Your task to perform on an android device: Open Chrome and go to settings Image 0: 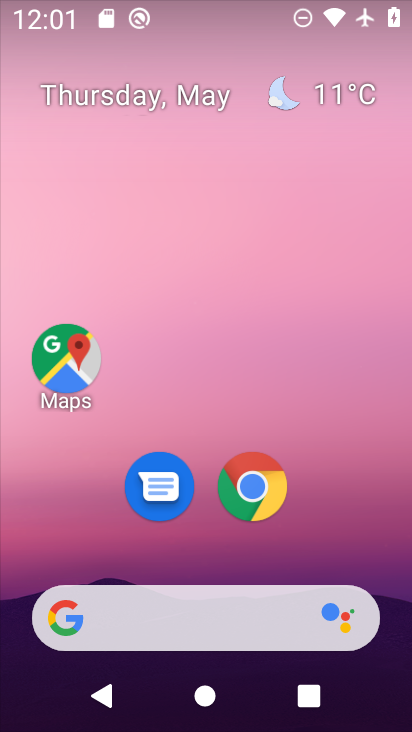
Step 0: drag from (327, 524) to (0, 592)
Your task to perform on an android device: Open Chrome and go to settings Image 1: 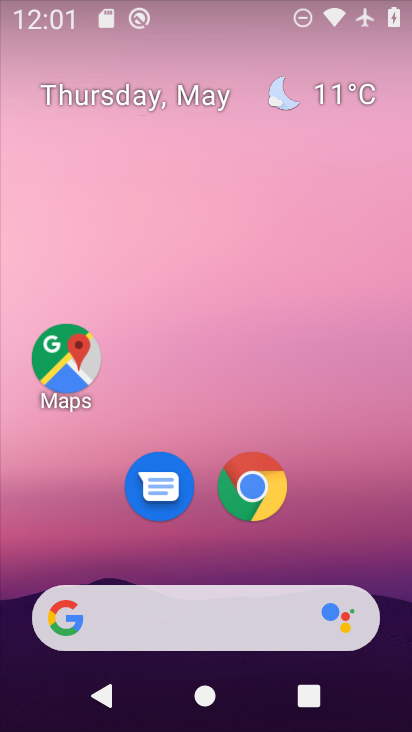
Step 1: drag from (2, 588) to (1, 263)
Your task to perform on an android device: Open Chrome and go to settings Image 2: 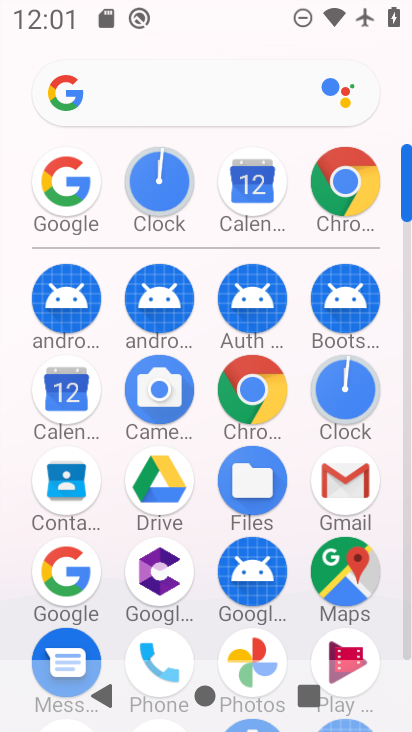
Step 2: drag from (395, 663) to (385, 400)
Your task to perform on an android device: Open Chrome and go to settings Image 3: 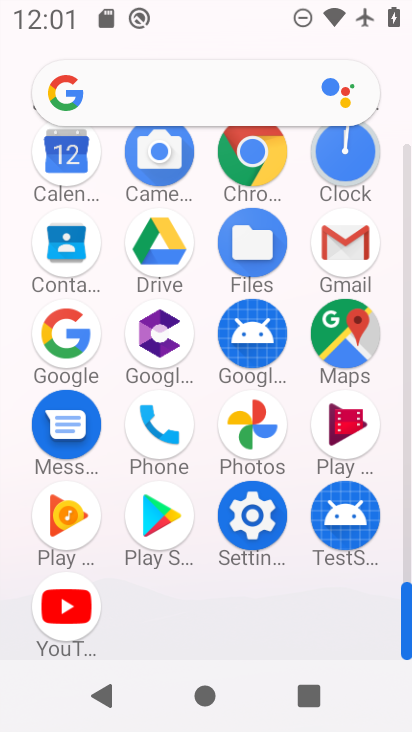
Step 3: click (253, 148)
Your task to perform on an android device: Open Chrome and go to settings Image 4: 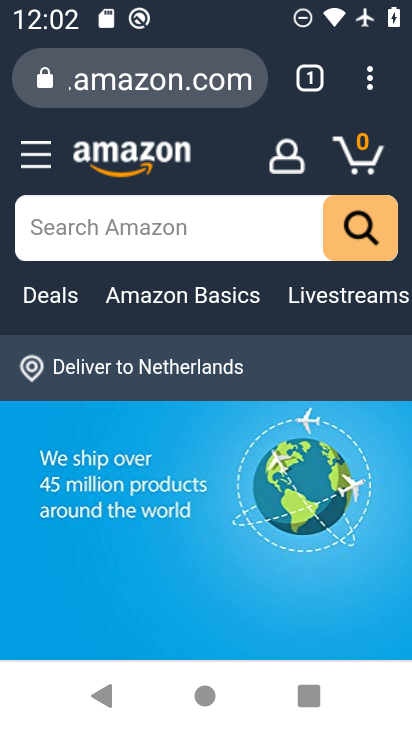
Step 4: task complete